Your task to perform on an android device: open app "NewsBreak: Local News & Alerts" (install if not already installed) Image 0: 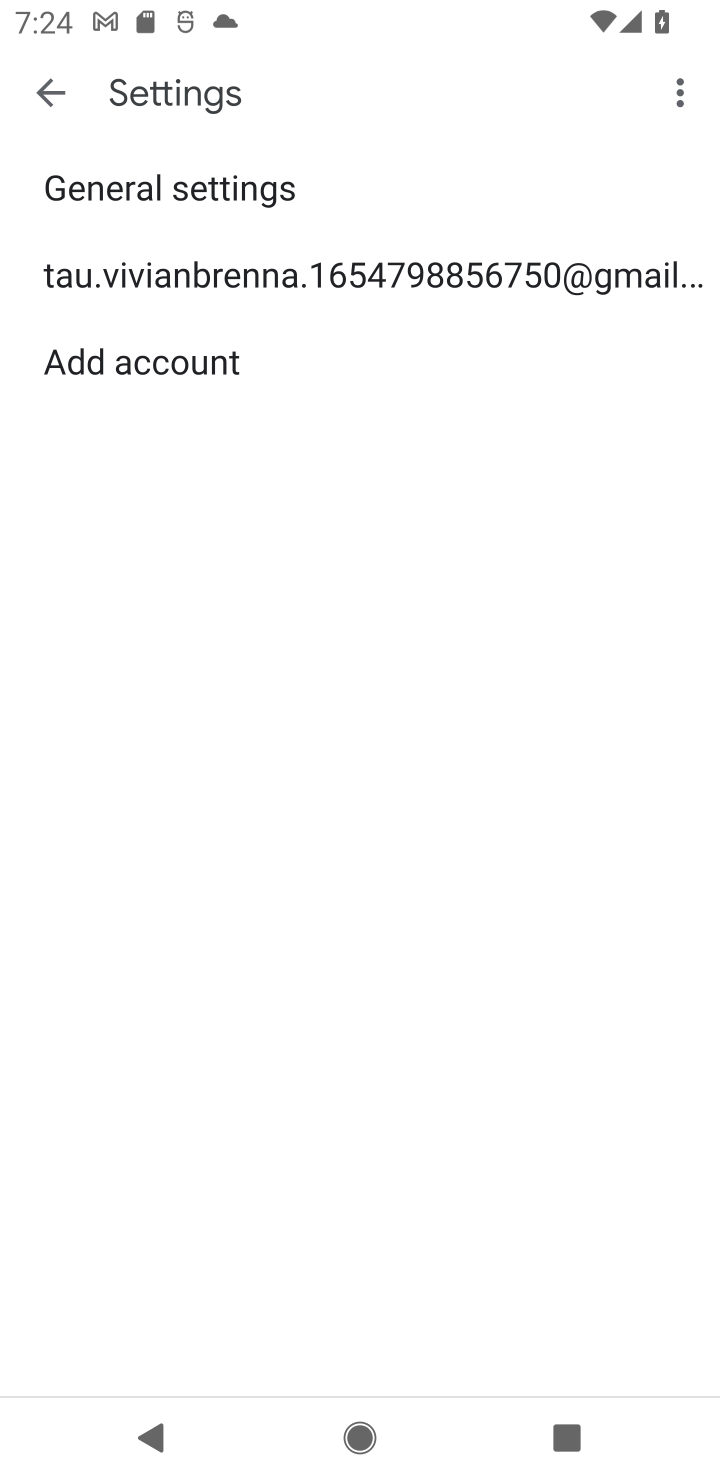
Step 0: press home button
Your task to perform on an android device: open app "NewsBreak: Local News & Alerts" (install if not already installed) Image 1: 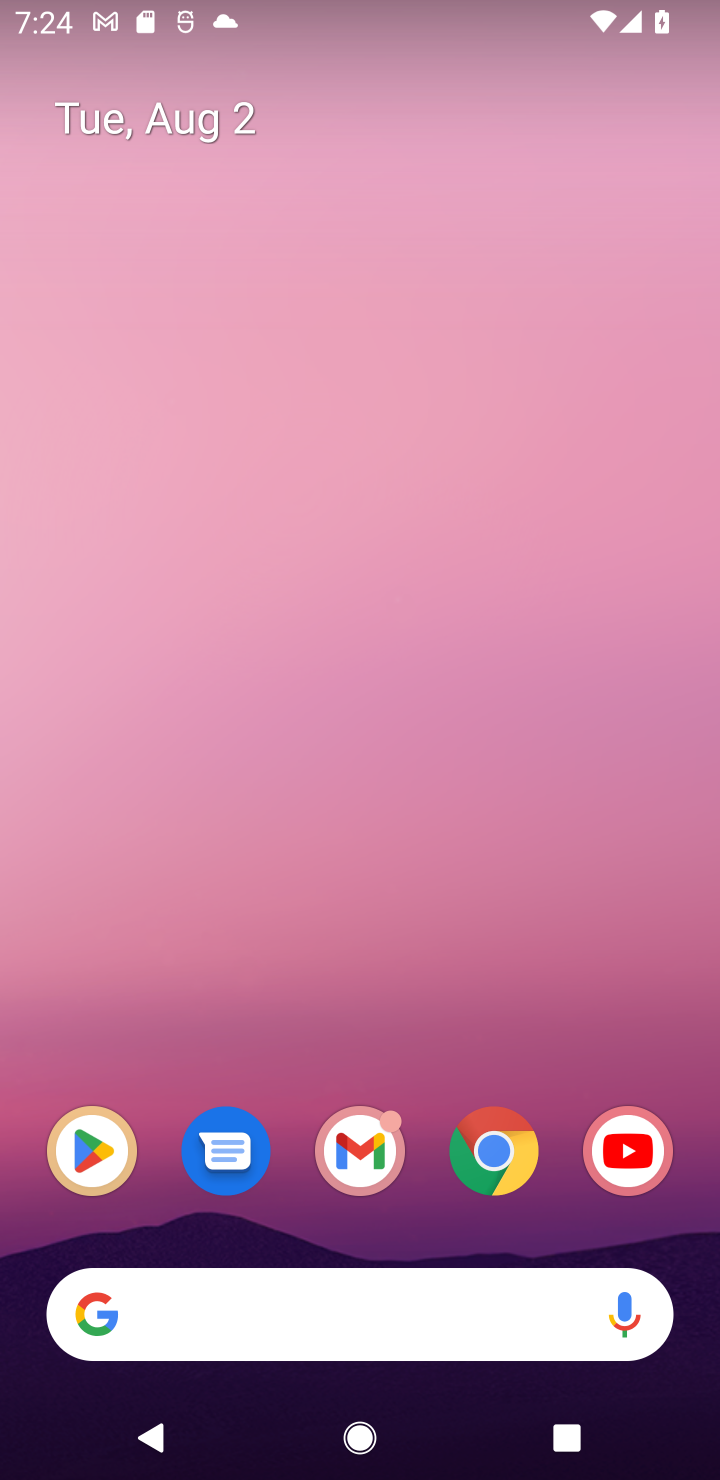
Step 1: click (55, 1159)
Your task to perform on an android device: open app "NewsBreak: Local News & Alerts" (install if not already installed) Image 2: 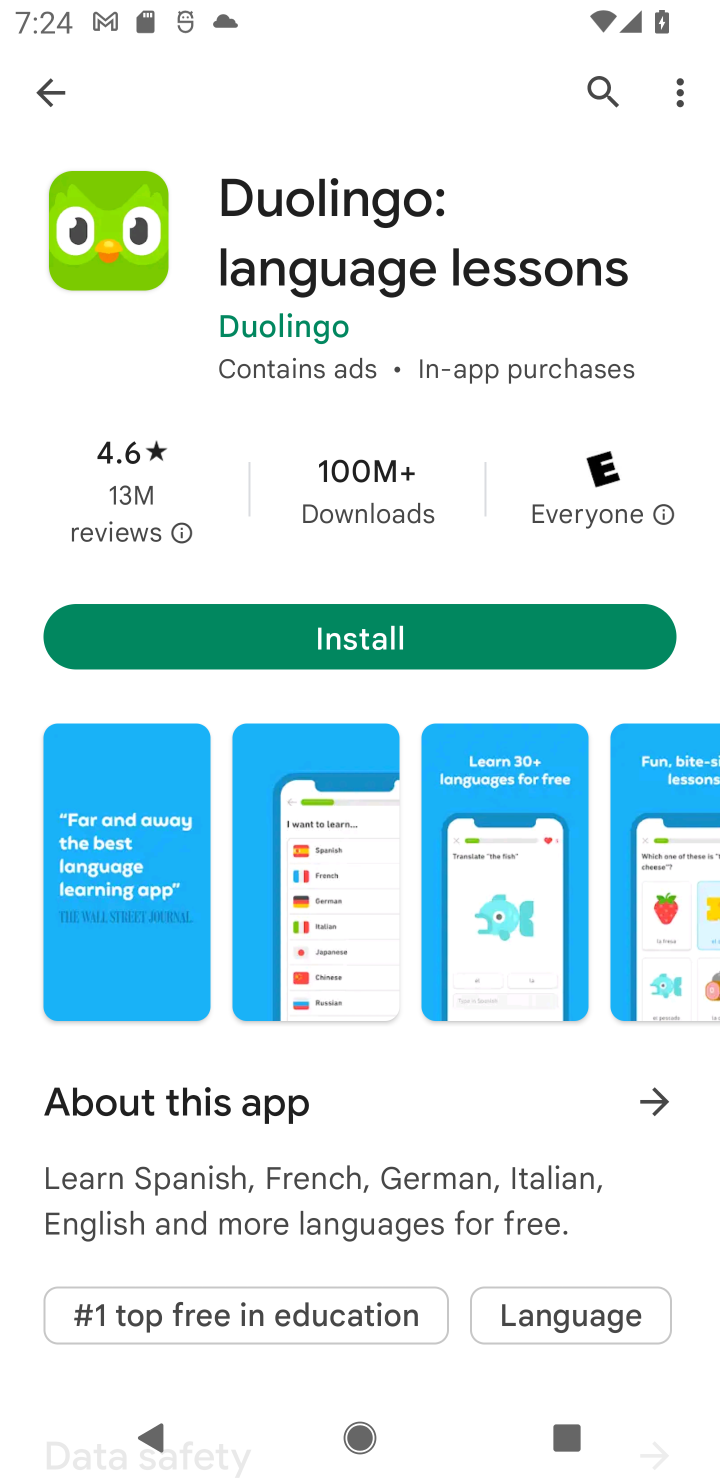
Step 2: click (594, 93)
Your task to perform on an android device: open app "NewsBreak: Local News & Alerts" (install if not already installed) Image 3: 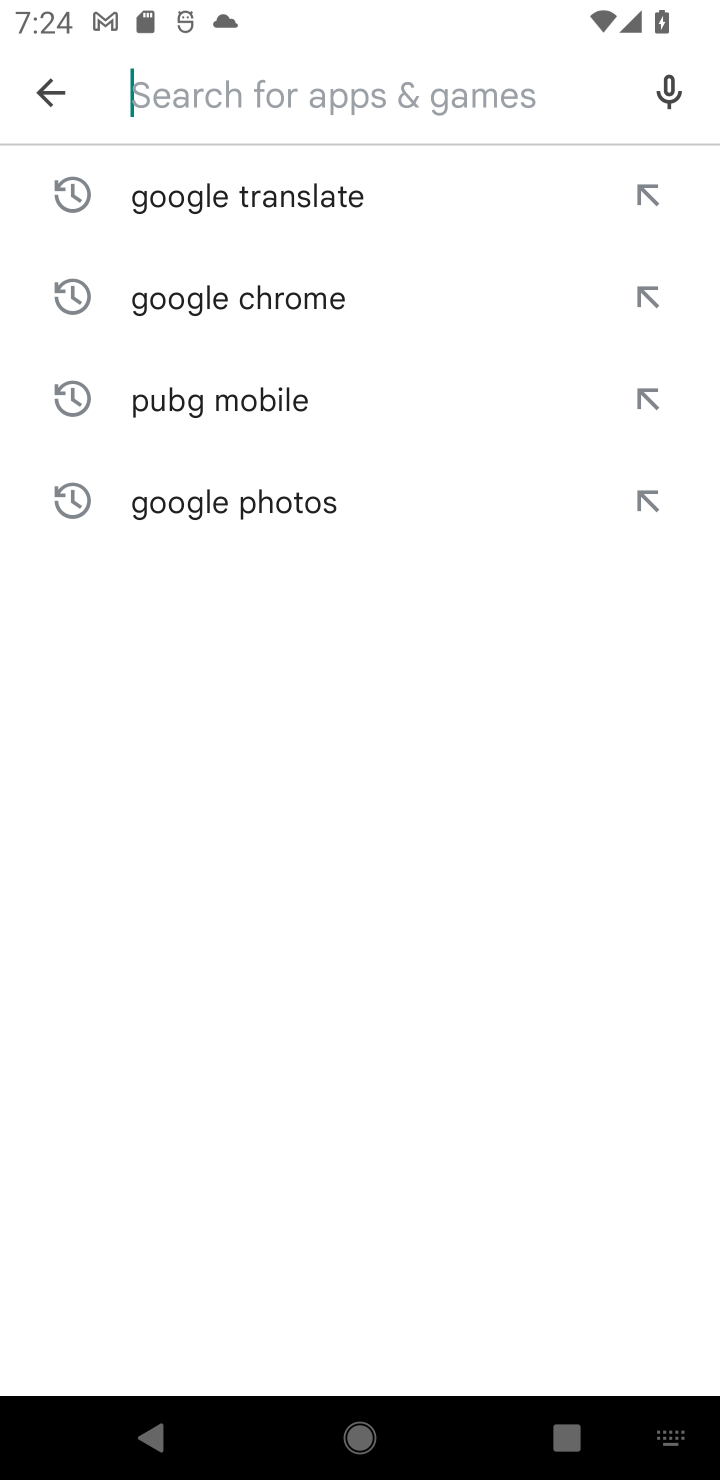
Step 3: type "NewsBreak: Local News & Alerts"
Your task to perform on an android device: open app "NewsBreak: Local News & Alerts" (install if not already installed) Image 4: 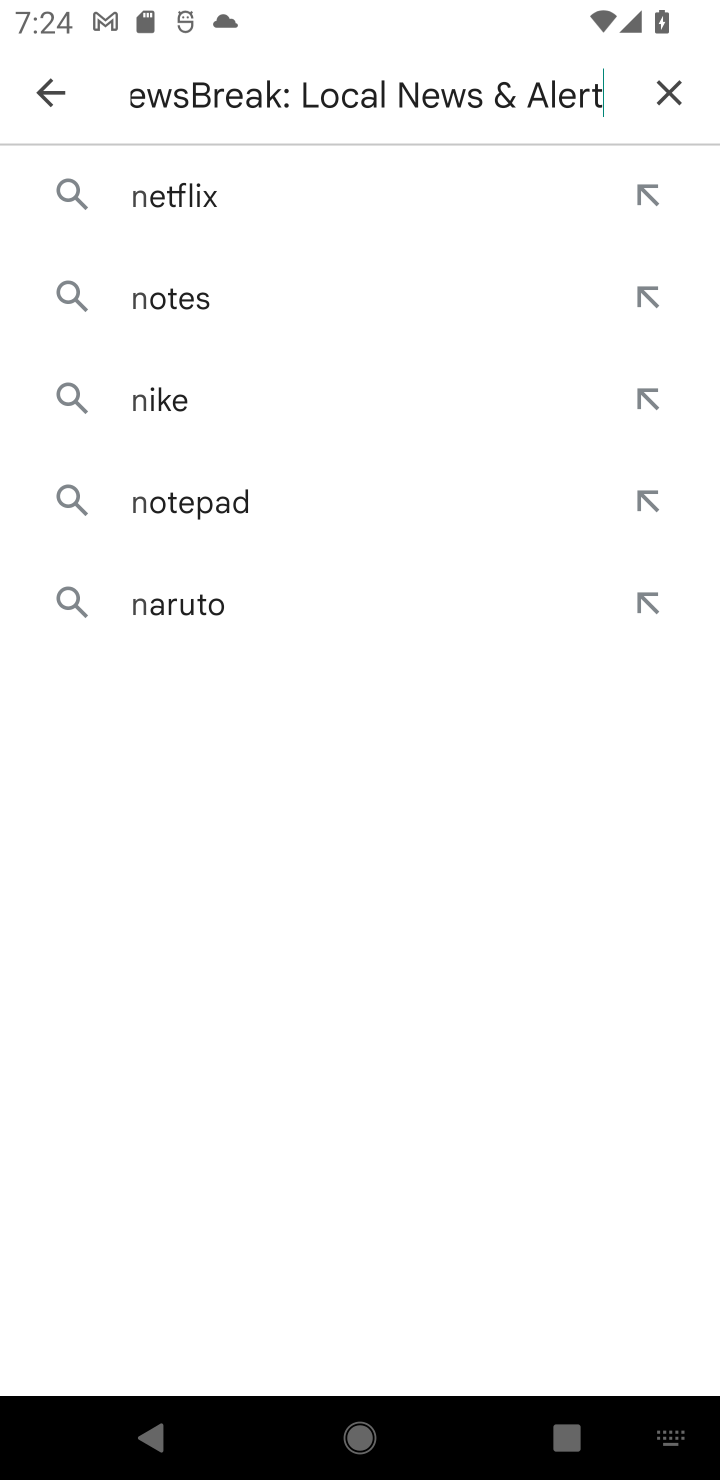
Step 4: type ""
Your task to perform on an android device: open app "NewsBreak: Local News & Alerts" (install if not already installed) Image 5: 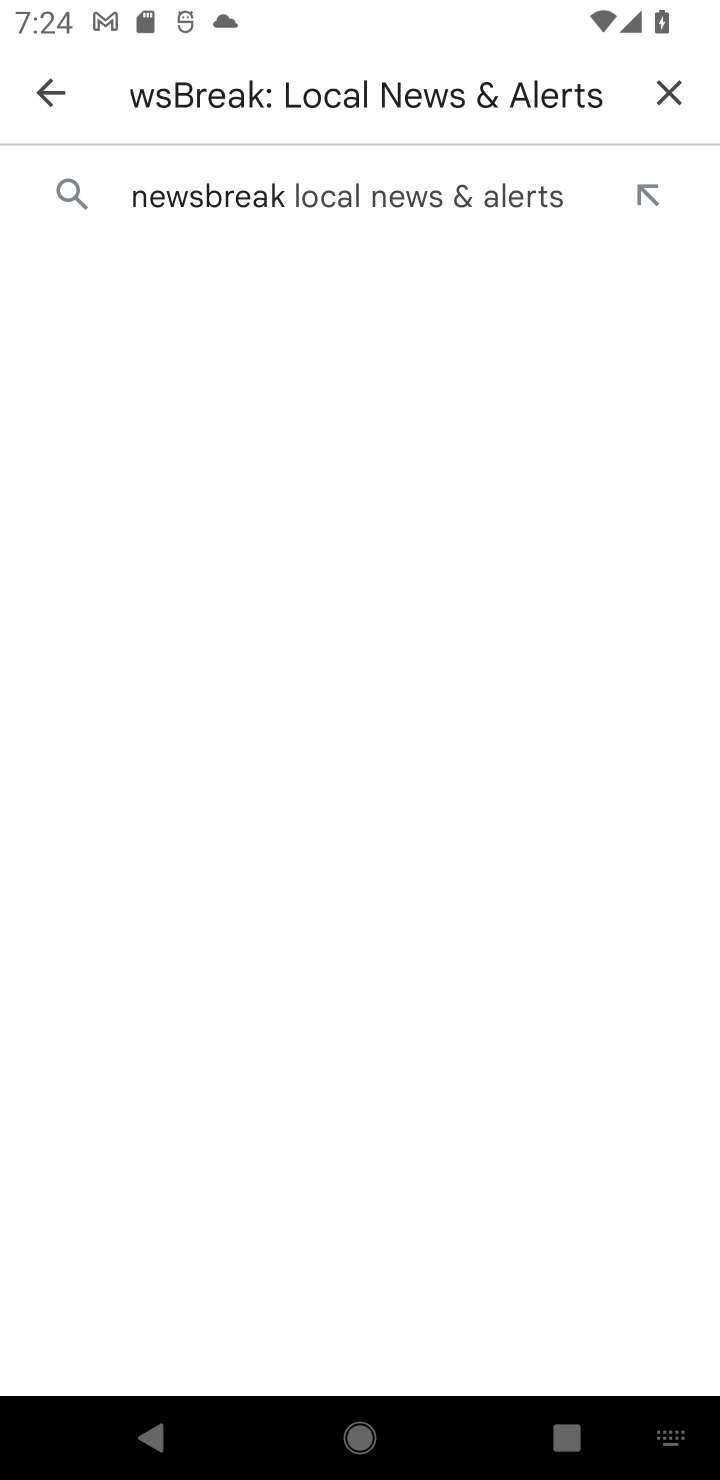
Step 5: click (178, 209)
Your task to perform on an android device: open app "NewsBreak: Local News & Alerts" (install if not already installed) Image 6: 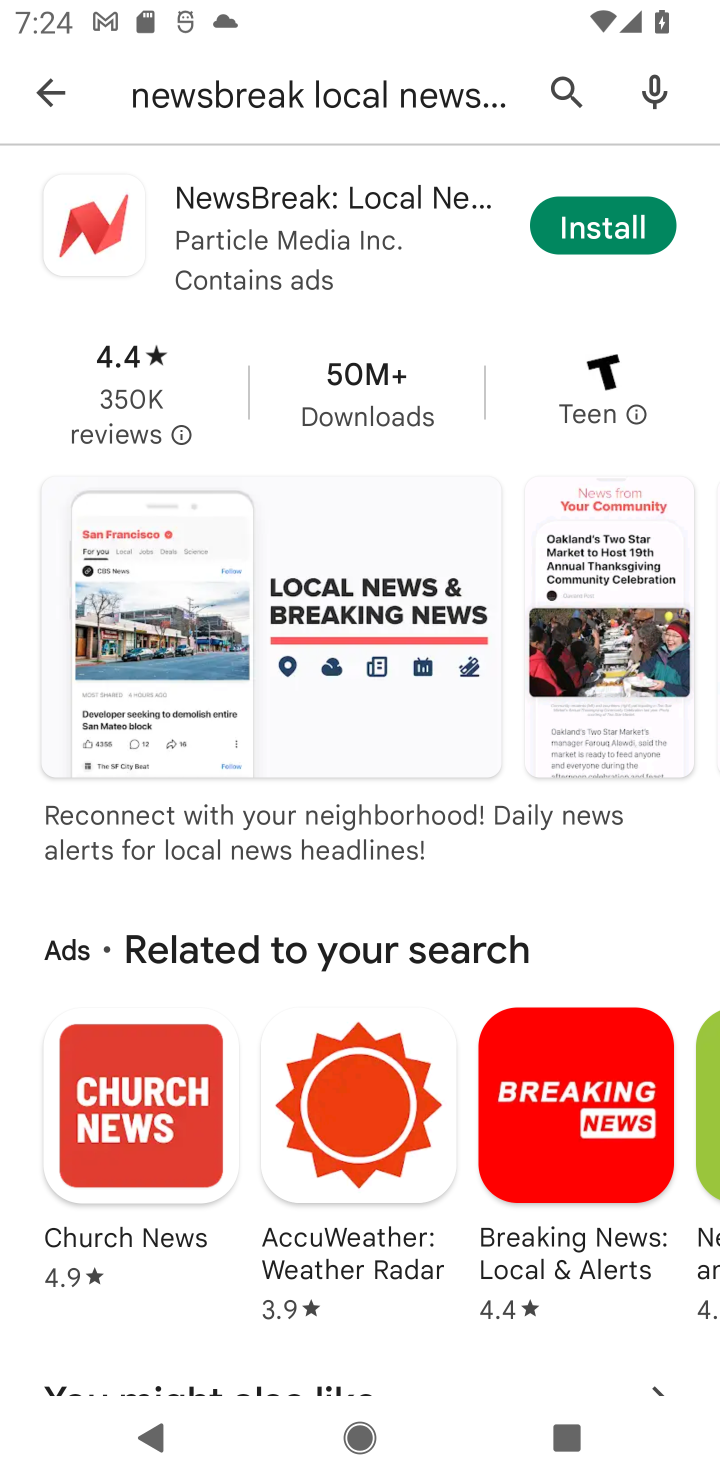
Step 6: click (560, 230)
Your task to perform on an android device: open app "NewsBreak: Local News & Alerts" (install if not already installed) Image 7: 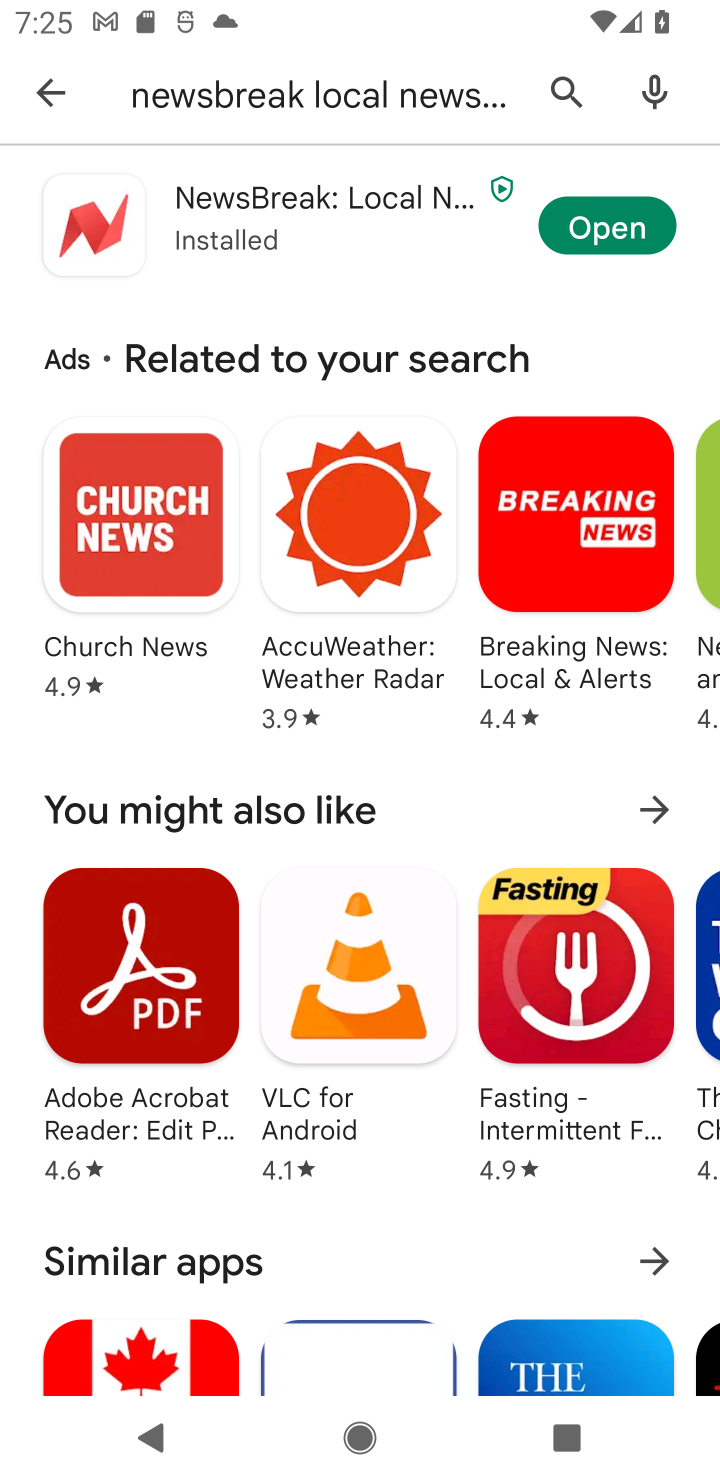
Step 7: click (594, 224)
Your task to perform on an android device: open app "NewsBreak: Local News & Alerts" (install if not already installed) Image 8: 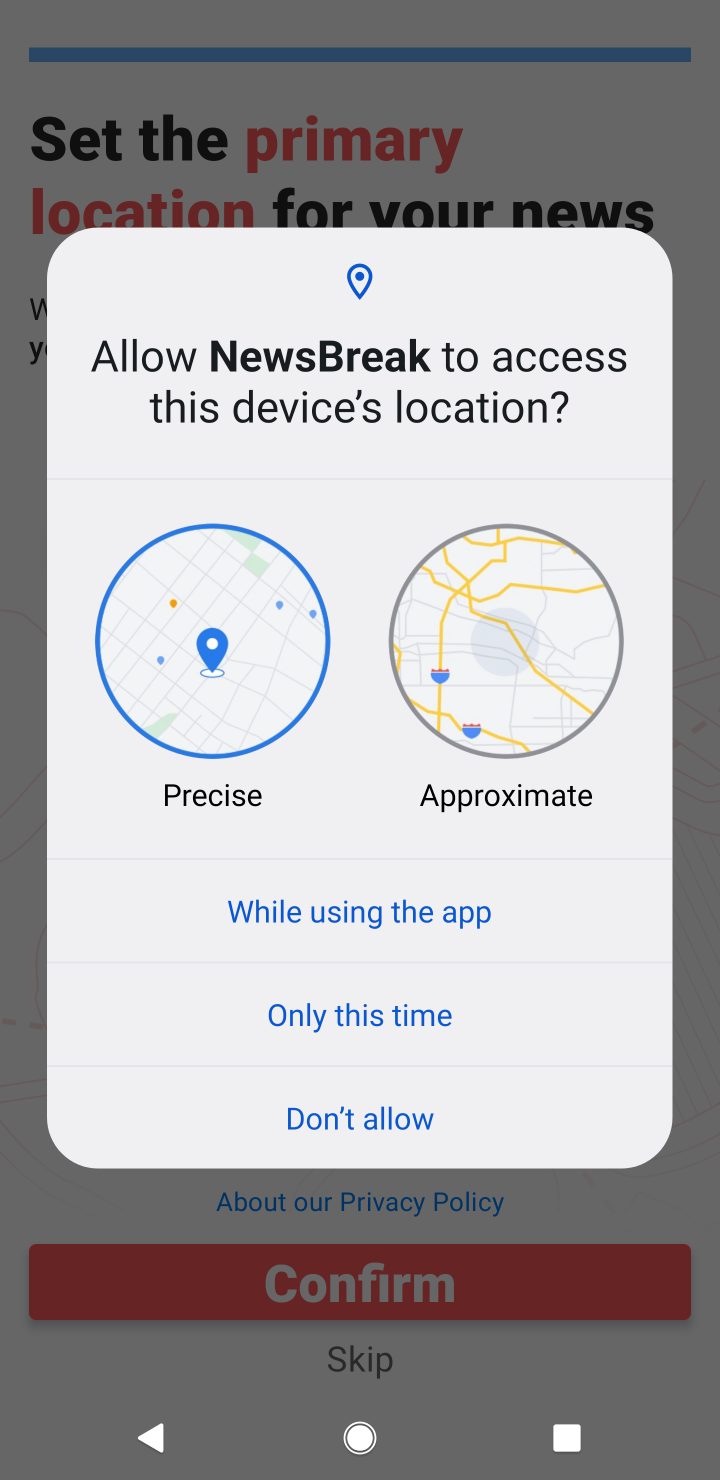
Step 8: task complete